Your task to perform on an android device: turn on sleep mode Image 0: 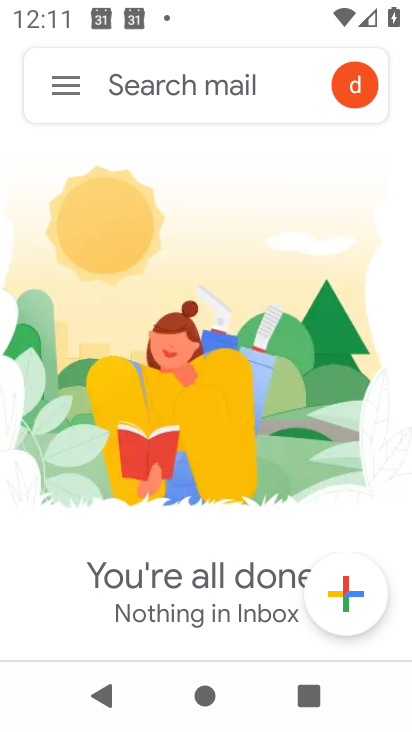
Step 0: press home button
Your task to perform on an android device: turn on sleep mode Image 1: 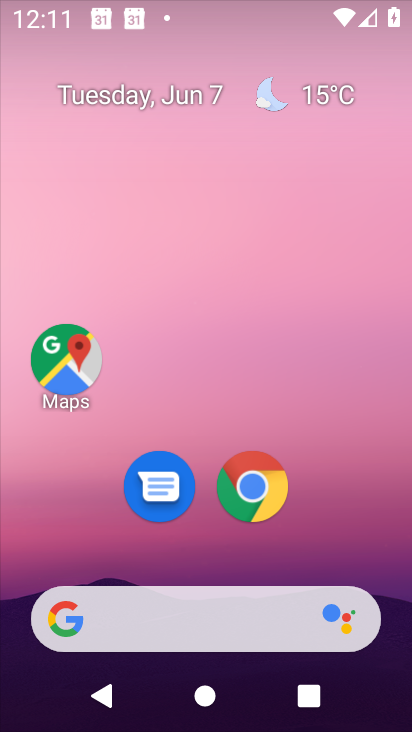
Step 1: drag from (333, 528) to (264, 11)
Your task to perform on an android device: turn on sleep mode Image 2: 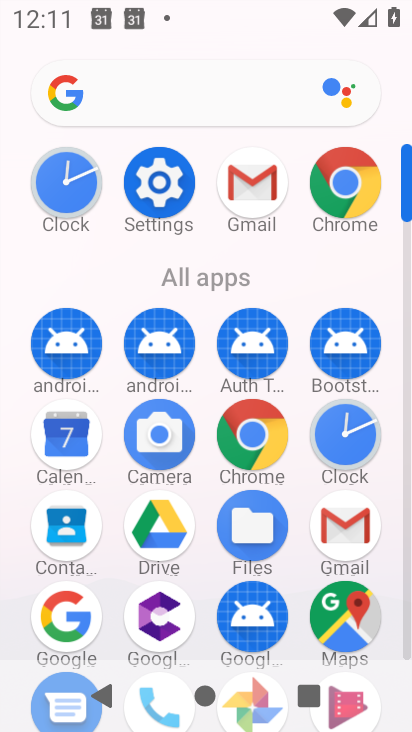
Step 2: click (157, 187)
Your task to perform on an android device: turn on sleep mode Image 3: 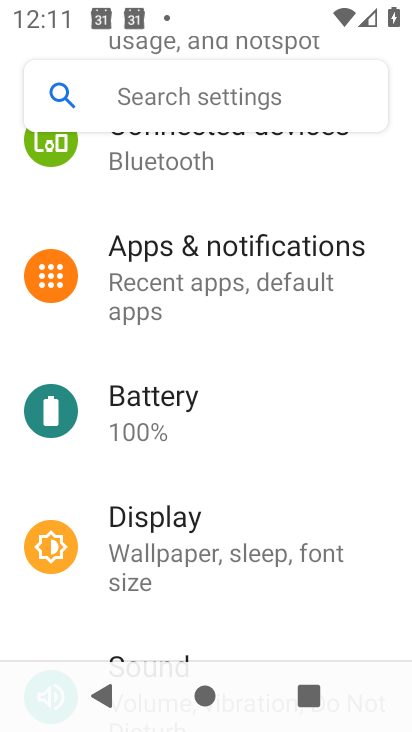
Step 3: click (289, 542)
Your task to perform on an android device: turn on sleep mode Image 4: 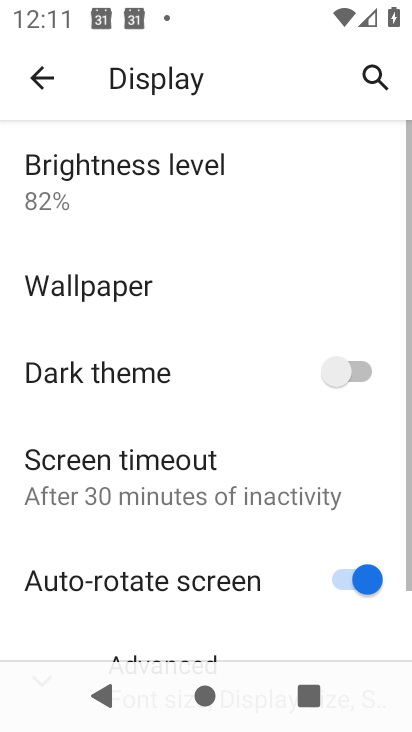
Step 4: task complete